Your task to perform on an android device: Go to ESPN.com Image 0: 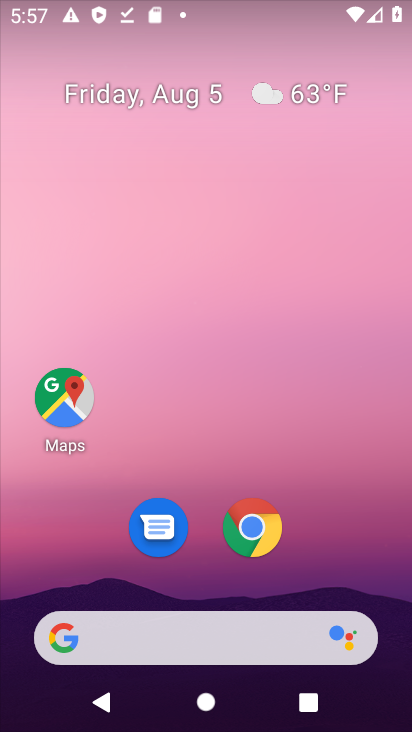
Step 0: drag from (207, 405) to (236, 169)
Your task to perform on an android device: Go to ESPN.com Image 1: 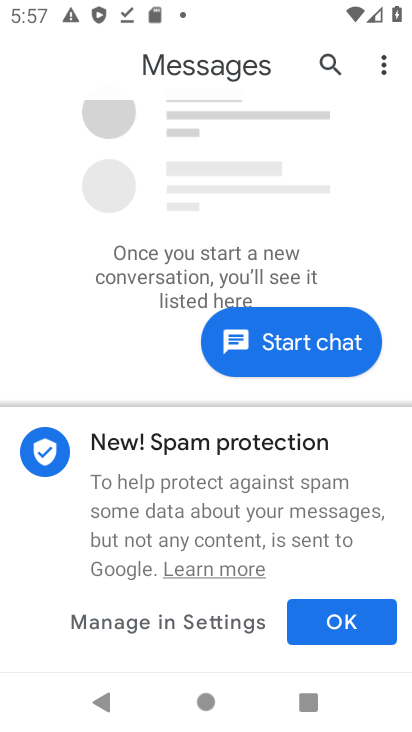
Step 1: drag from (240, 503) to (276, 271)
Your task to perform on an android device: Go to ESPN.com Image 2: 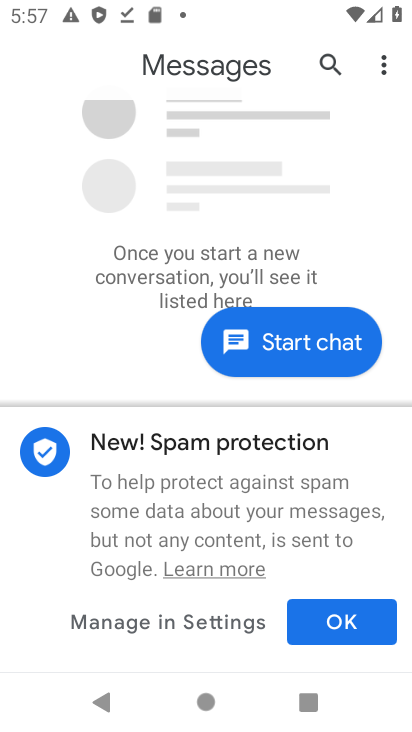
Step 2: drag from (263, 488) to (263, 414)
Your task to perform on an android device: Go to ESPN.com Image 3: 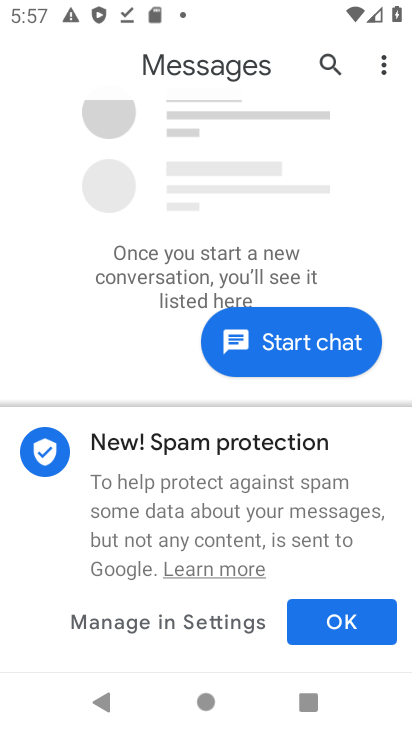
Step 3: drag from (263, 497) to (304, 223)
Your task to perform on an android device: Go to ESPN.com Image 4: 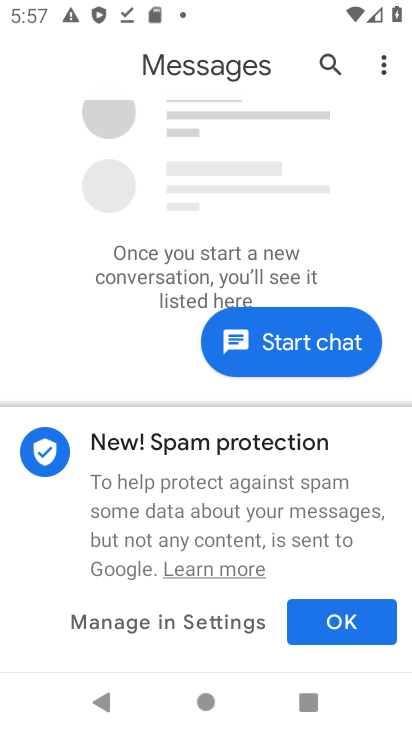
Step 4: drag from (298, 256) to (285, 684)
Your task to perform on an android device: Go to ESPN.com Image 5: 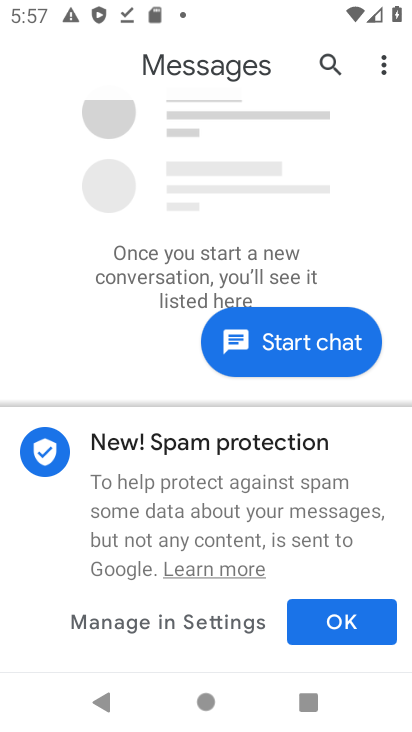
Step 5: press home button
Your task to perform on an android device: Go to ESPN.com Image 6: 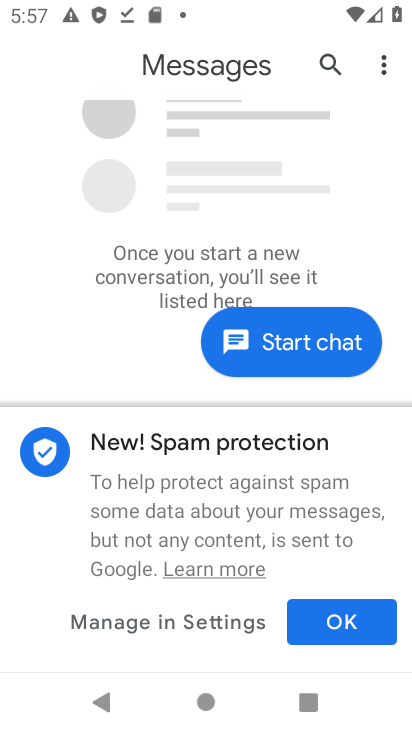
Step 6: press home button
Your task to perform on an android device: Go to ESPN.com Image 7: 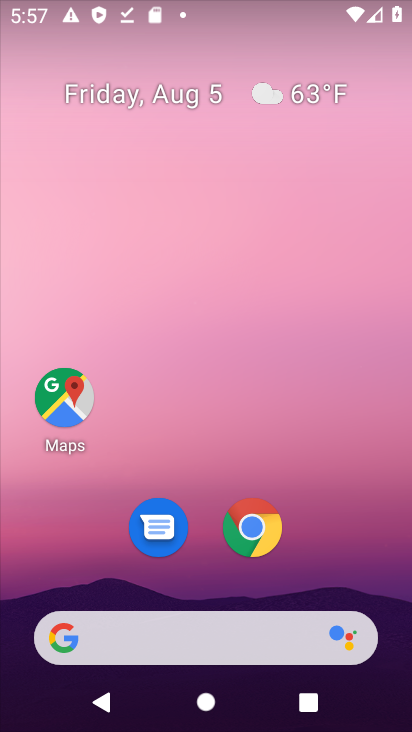
Step 7: drag from (186, 567) to (273, 118)
Your task to perform on an android device: Go to ESPN.com Image 8: 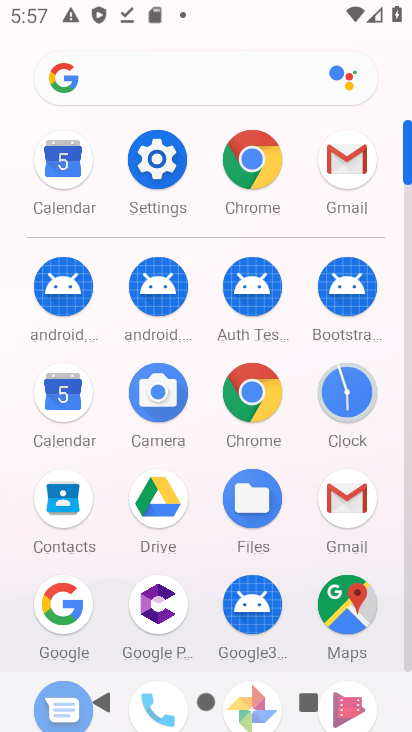
Step 8: click (195, 83)
Your task to perform on an android device: Go to ESPN.com Image 9: 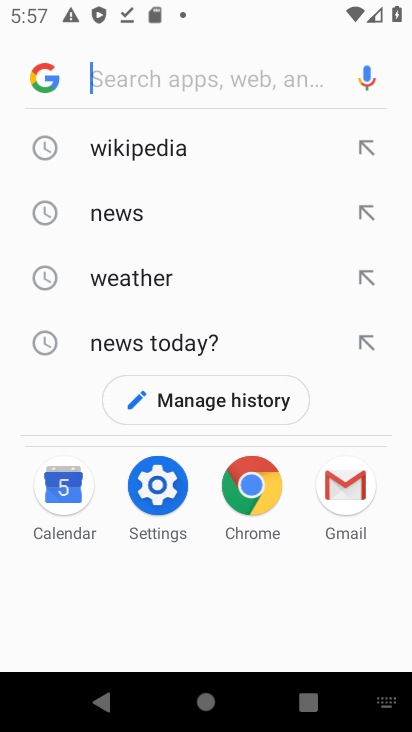
Step 9: type "ESPN.com"
Your task to perform on an android device: Go to ESPN.com Image 10: 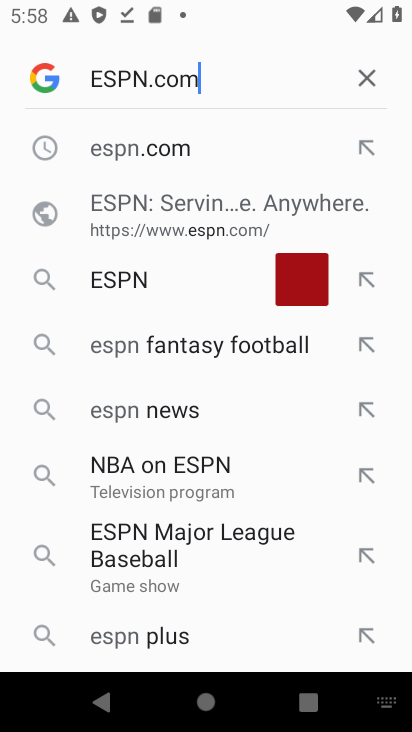
Step 10: type ""
Your task to perform on an android device: Go to ESPN.com Image 11: 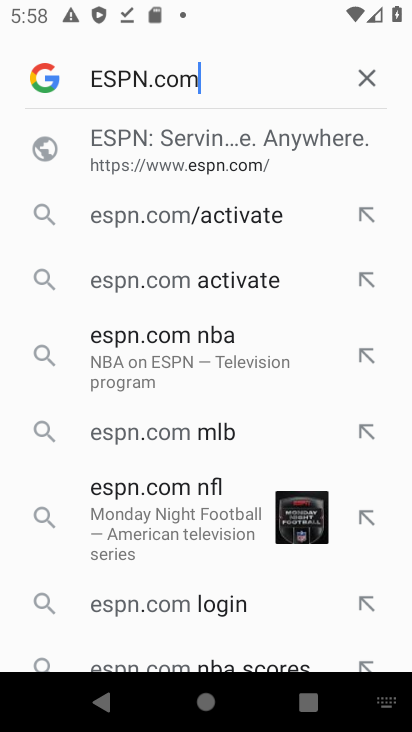
Step 11: click (148, 147)
Your task to perform on an android device: Go to ESPN.com Image 12: 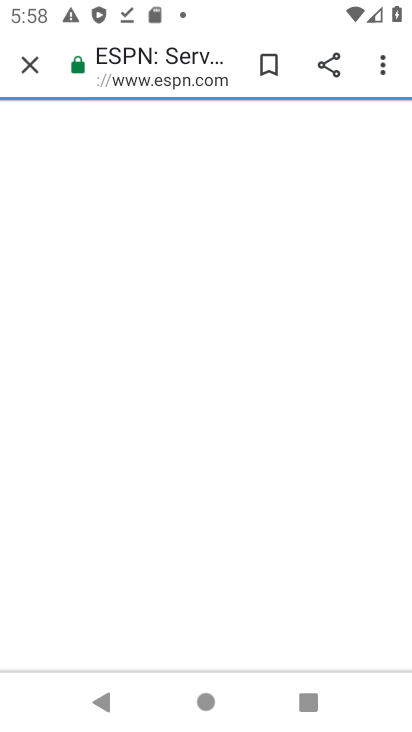
Step 12: task complete